Your task to perform on an android device: toggle notification dots Image 0: 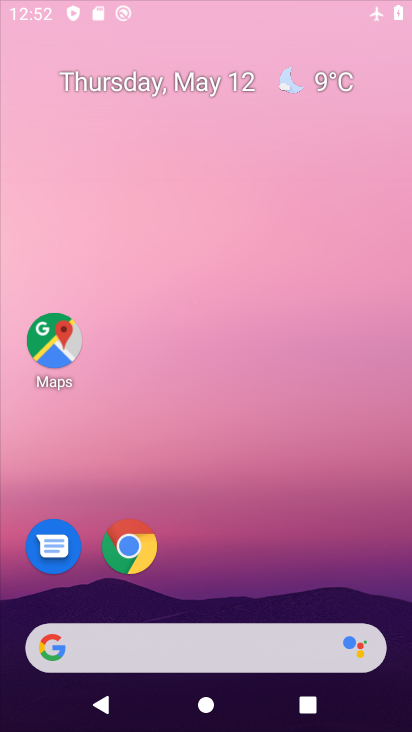
Step 0: press home button
Your task to perform on an android device: toggle notification dots Image 1: 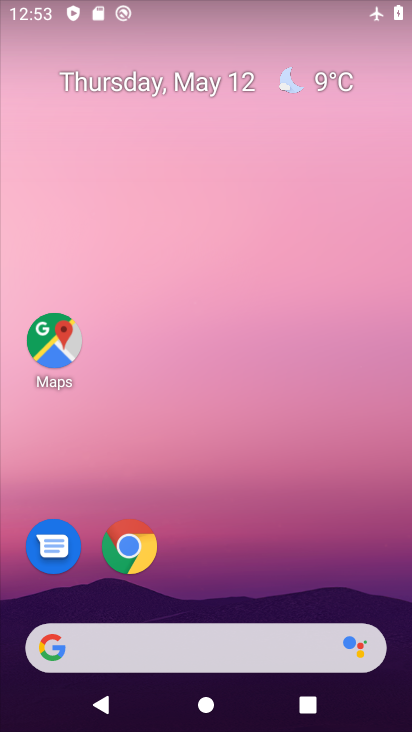
Step 1: drag from (282, 687) to (293, 232)
Your task to perform on an android device: toggle notification dots Image 2: 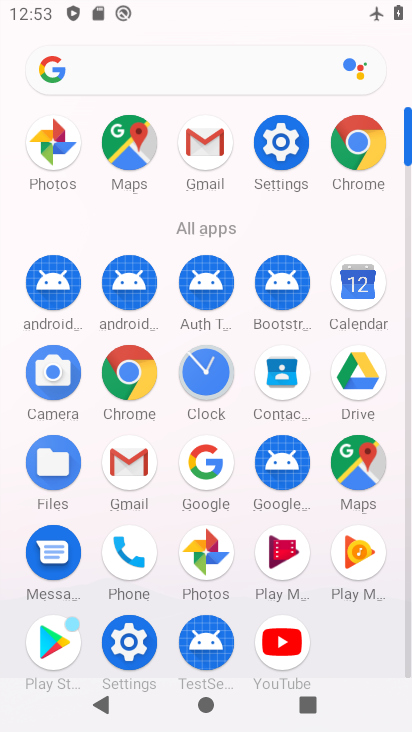
Step 2: click (256, 157)
Your task to perform on an android device: toggle notification dots Image 3: 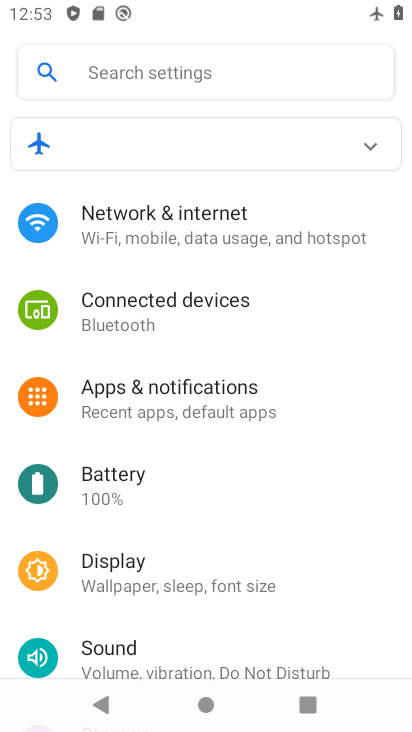
Step 3: click (197, 64)
Your task to perform on an android device: toggle notification dots Image 4: 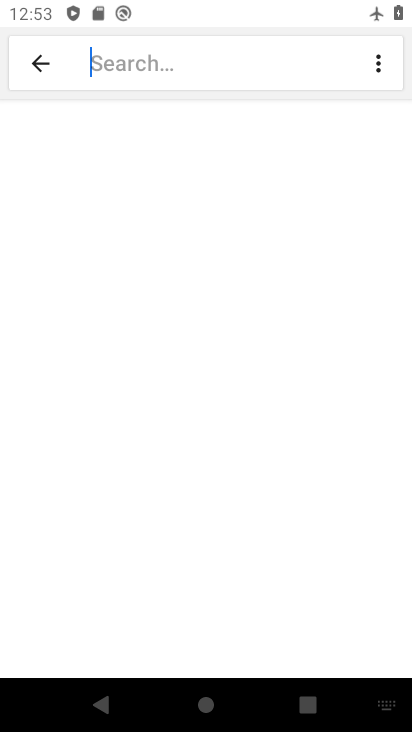
Step 4: drag from (377, 694) to (370, 617)
Your task to perform on an android device: toggle notification dots Image 5: 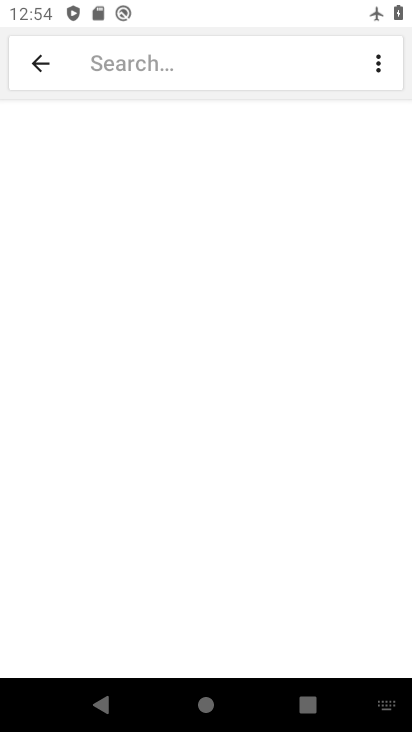
Step 5: click (384, 708)
Your task to perform on an android device: toggle notification dots Image 6: 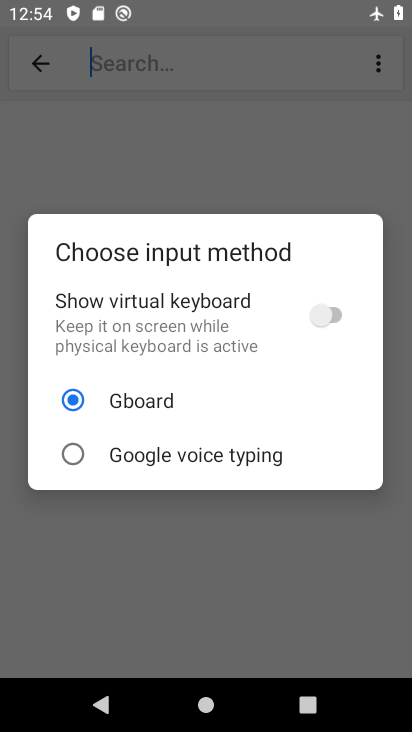
Step 6: click (330, 337)
Your task to perform on an android device: toggle notification dots Image 7: 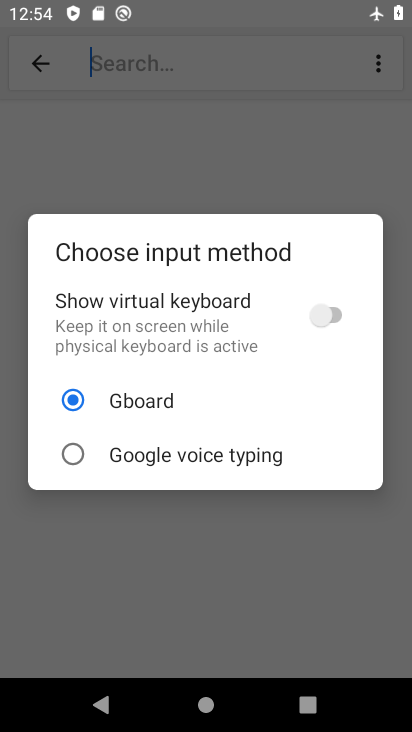
Step 7: click (322, 302)
Your task to perform on an android device: toggle notification dots Image 8: 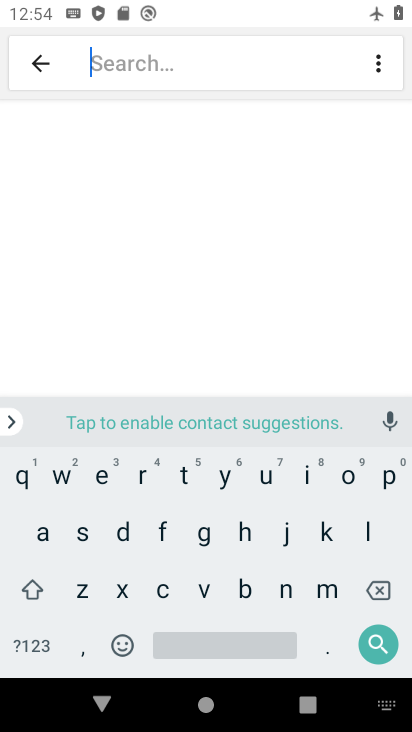
Step 8: click (126, 529)
Your task to perform on an android device: toggle notification dots Image 9: 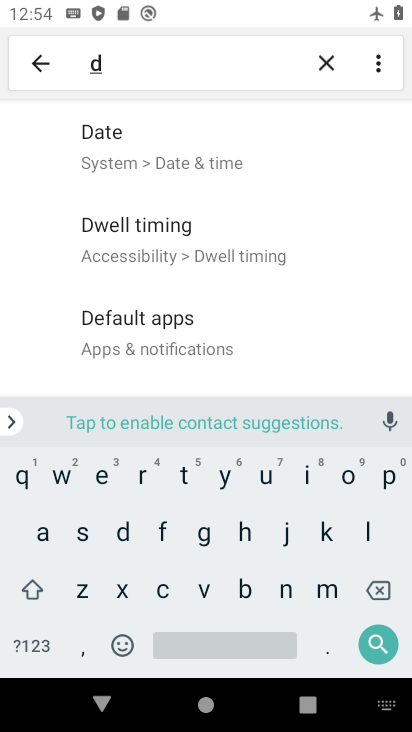
Step 9: click (349, 476)
Your task to perform on an android device: toggle notification dots Image 10: 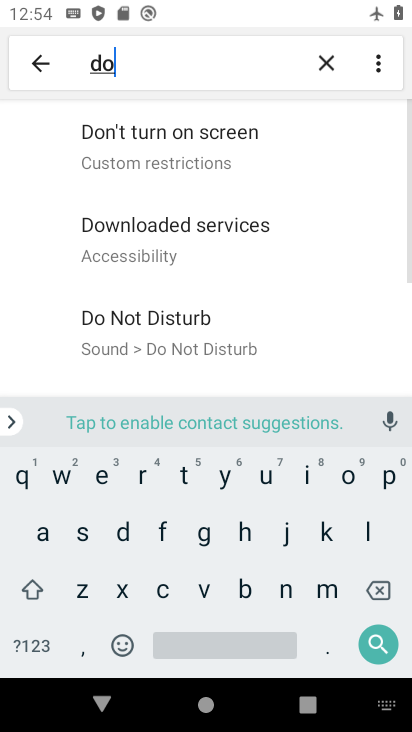
Step 10: click (183, 477)
Your task to perform on an android device: toggle notification dots Image 11: 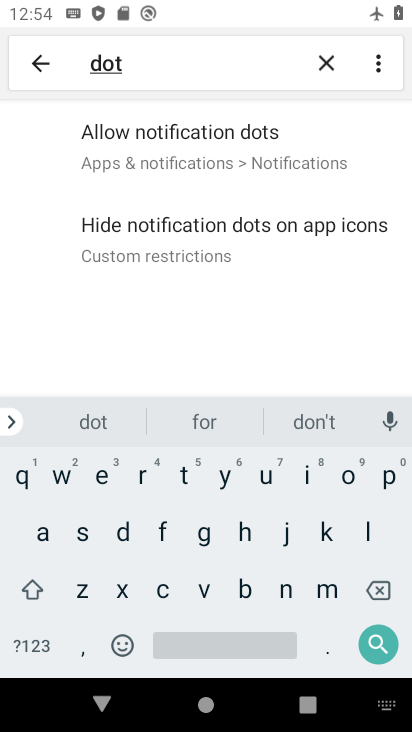
Step 11: click (156, 132)
Your task to perform on an android device: toggle notification dots Image 12: 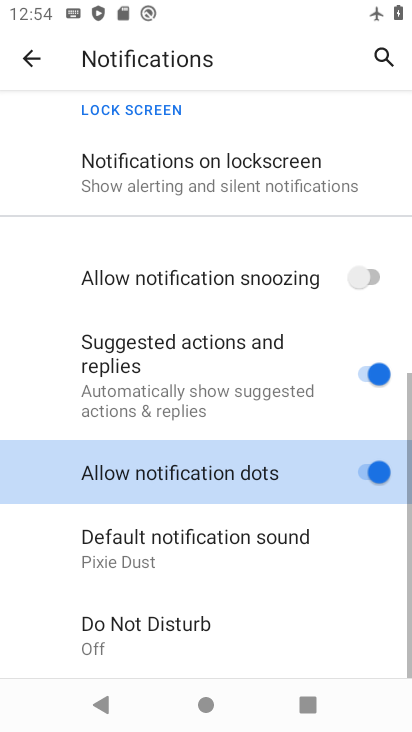
Step 12: task complete